Your task to perform on an android device: turn on sleep mode Image 0: 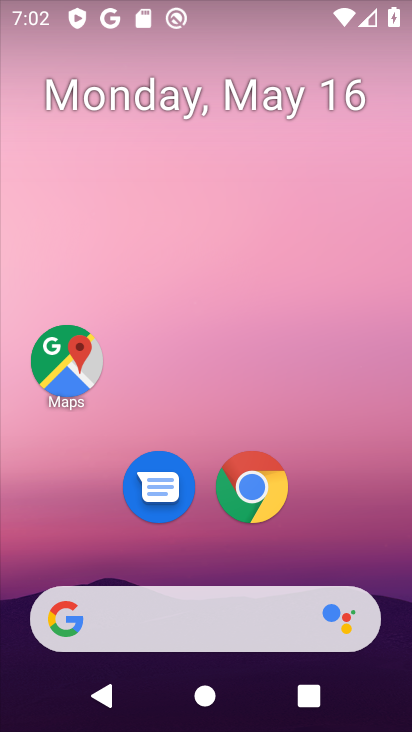
Step 0: drag from (364, 523) to (244, 0)
Your task to perform on an android device: turn on sleep mode Image 1: 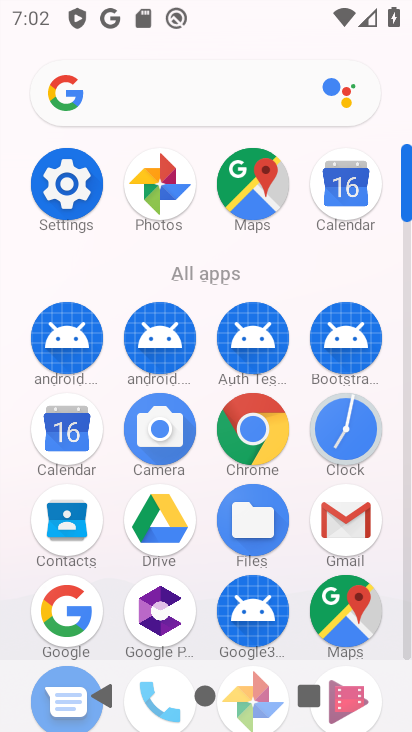
Step 1: drag from (328, 7) to (164, 625)
Your task to perform on an android device: turn on sleep mode Image 2: 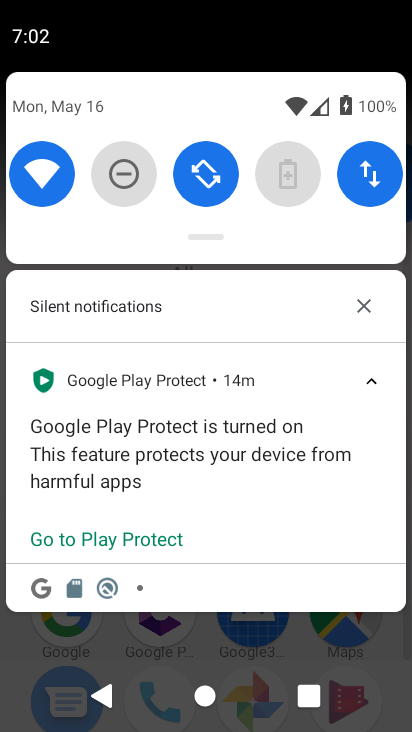
Step 2: drag from (213, 239) to (158, 581)
Your task to perform on an android device: turn on sleep mode Image 3: 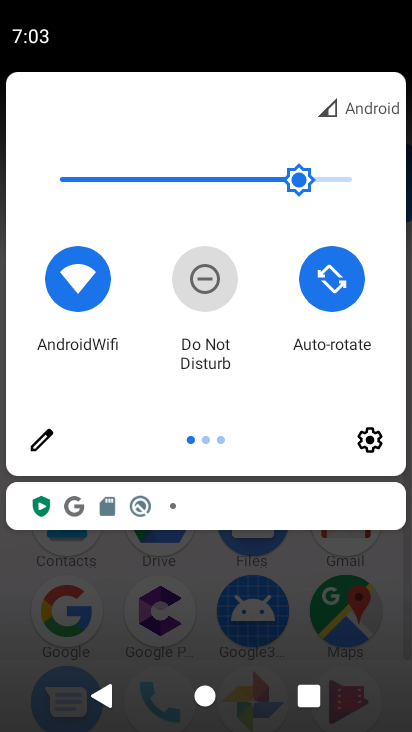
Step 3: click (36, 437)
Your task to perform on an android device: turn on sleep mode Image 4: 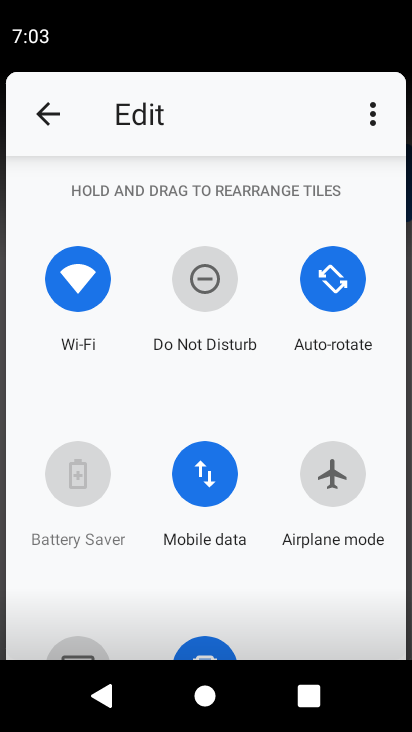
Step 4: task complete